Your task to perform on an android device: Show me popular videos on Youtube Image 0: 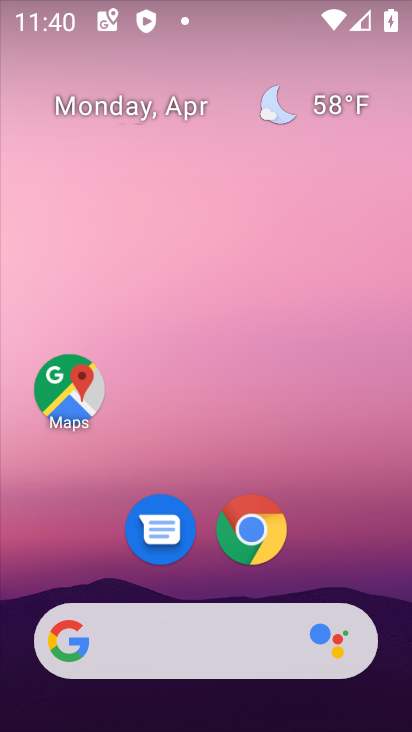
Step 0: drag from (374, 603) to (196, 49)
Your task to perform on an android device: Show me popular videos on Youtube Image 1: 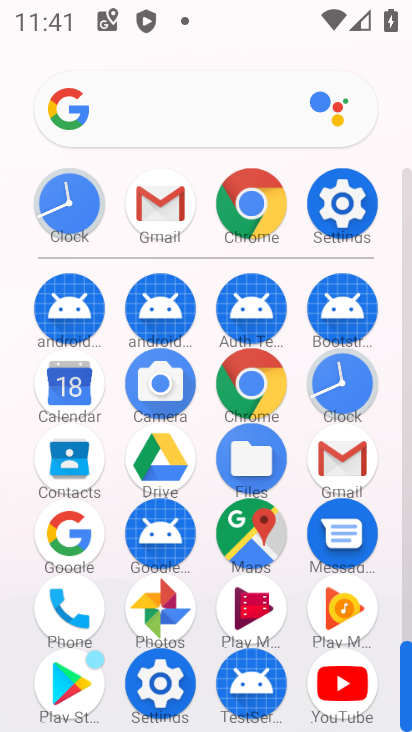
Step 1: click (328, 670)
Your task to perform on an android device: Show me popular videos on Youtube Image 2: 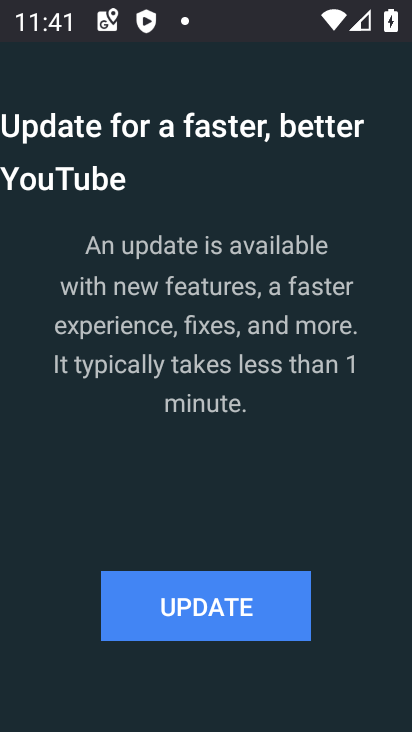
Step 2: click (211, 596)
Your task to perform on an android device: Show me popular videos on Youtube Image 3: 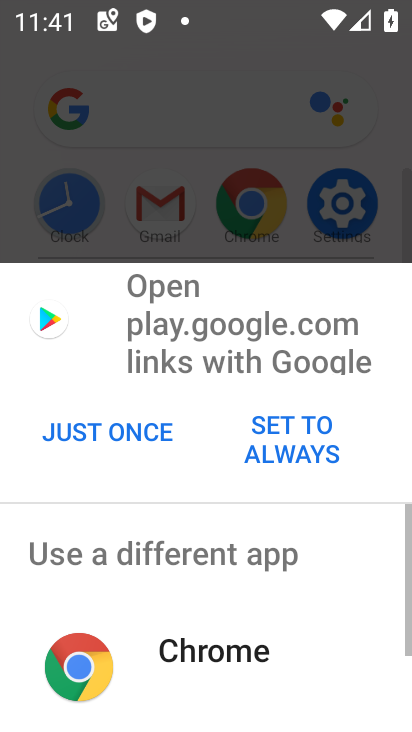
Step 3: click (106, 443)
Your task to perform on an android device: Show me popular videos on Youtube Image 4: 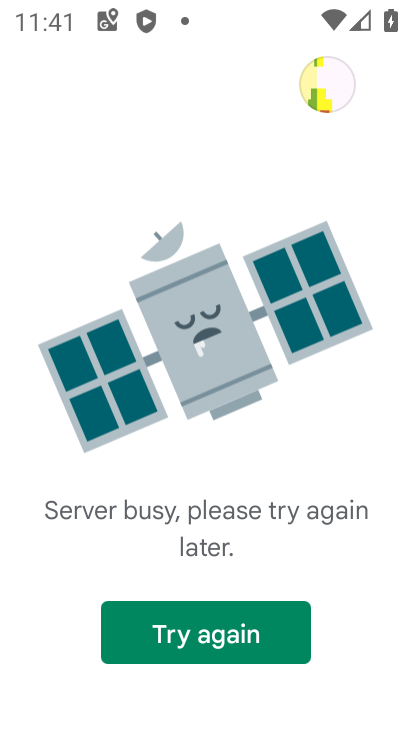
Step 4: task complete